Your task to perform on an android device: Do I have any events today? Image 0: 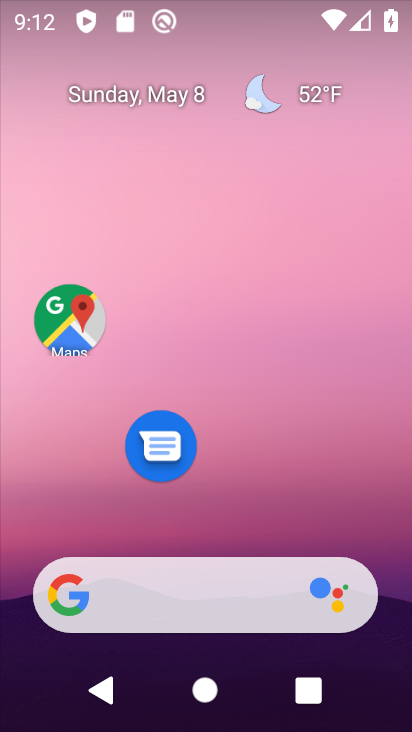
Step 0: drag from (315, 493) to (309, 22)
Your task to perform on an android device: Do I have any events today? Image 1: 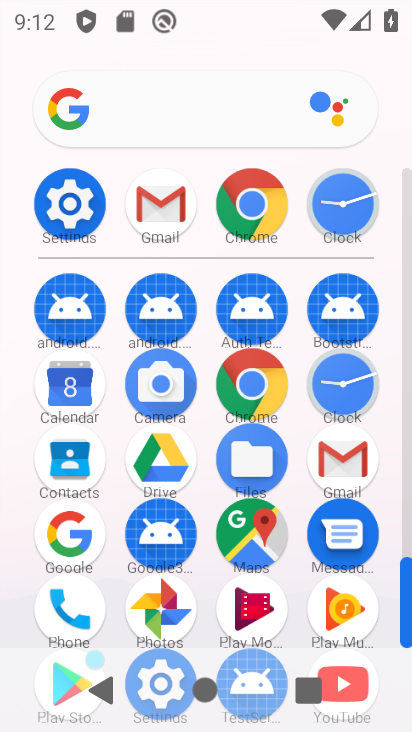
Step 1: click (65, 393)
Your task to perform on an android device: Do I have any events today? Image 2: 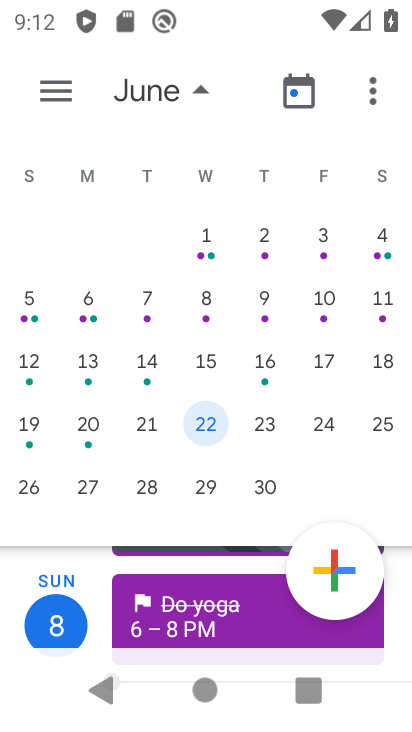
Step 2: click (52, 92)
Your task to perform on an android device: Do I have any events today? Image 3: 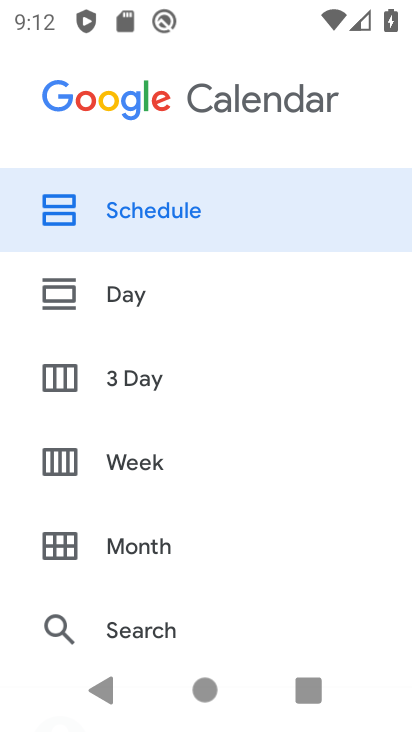
Step 3: click (170, 198)
Your task to perform on an android device: Do I have any events today? Image 4: 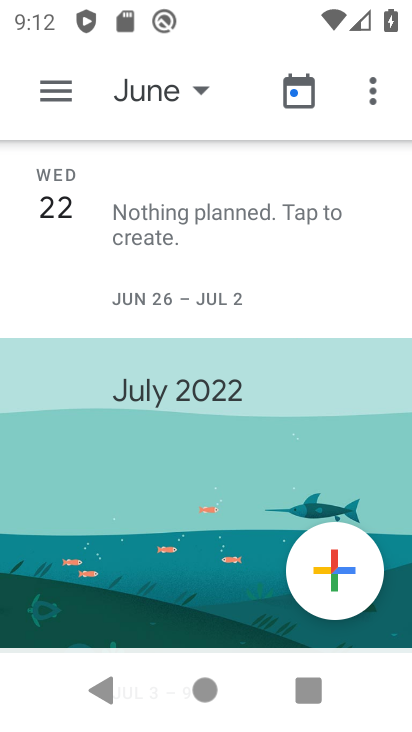
Step 4: task complete